Your task to perform on an android device: see sites visited before in the chrome app Image 0: 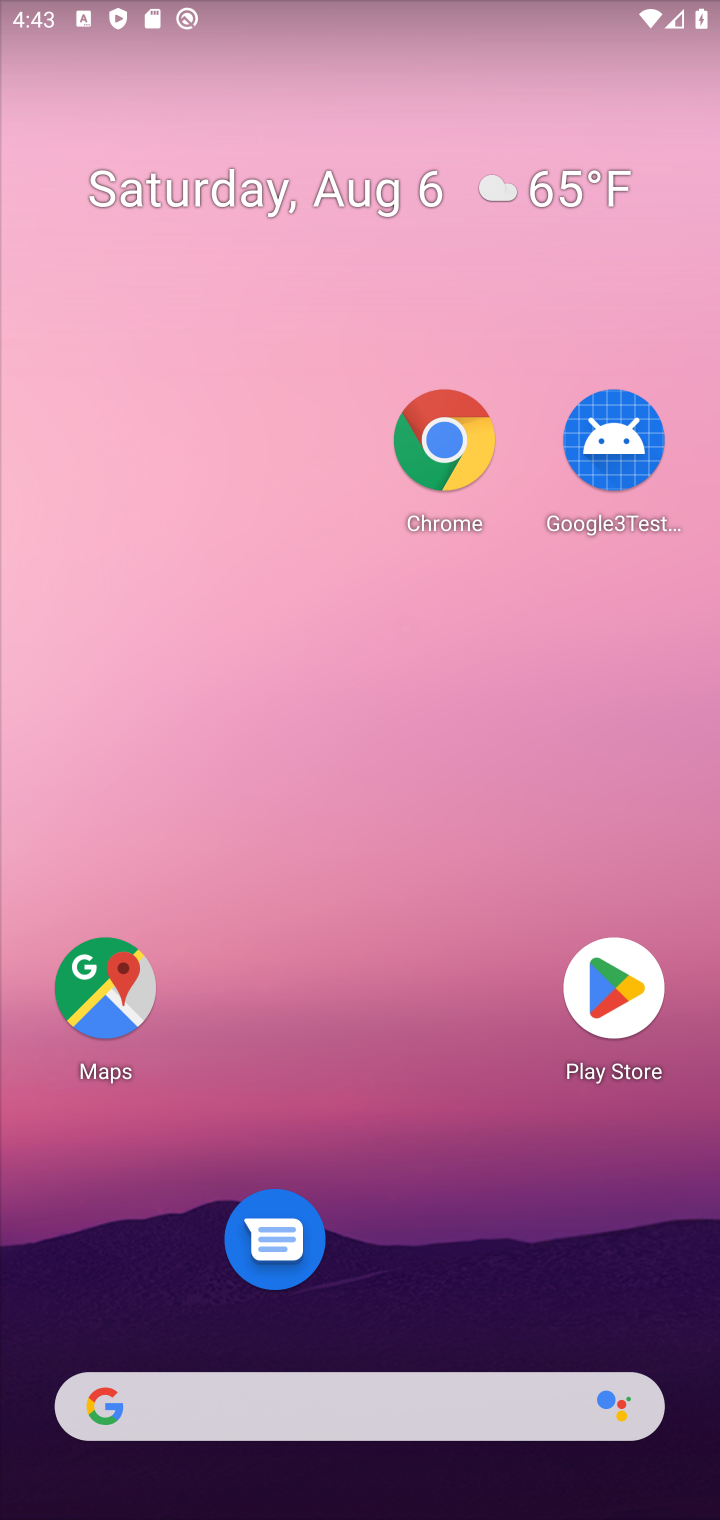
Step 0: drag from (374, 1380) to (386, 90)
Your task to perform on an android device: see sites visited before in the chrome app Image 1: 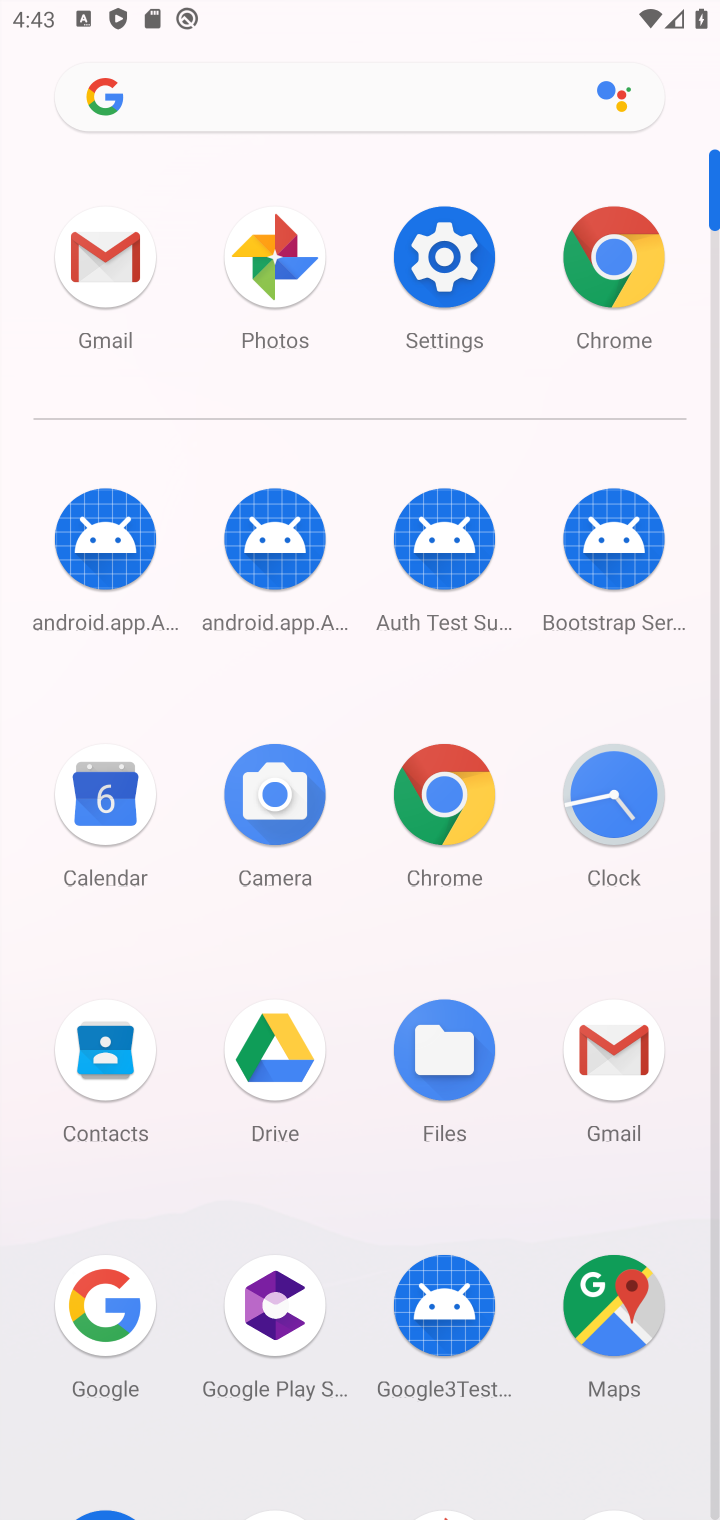
Step 1: click (449, 769)
Your task to perform on an android device: see sites visited before in the chrome app Image 2: 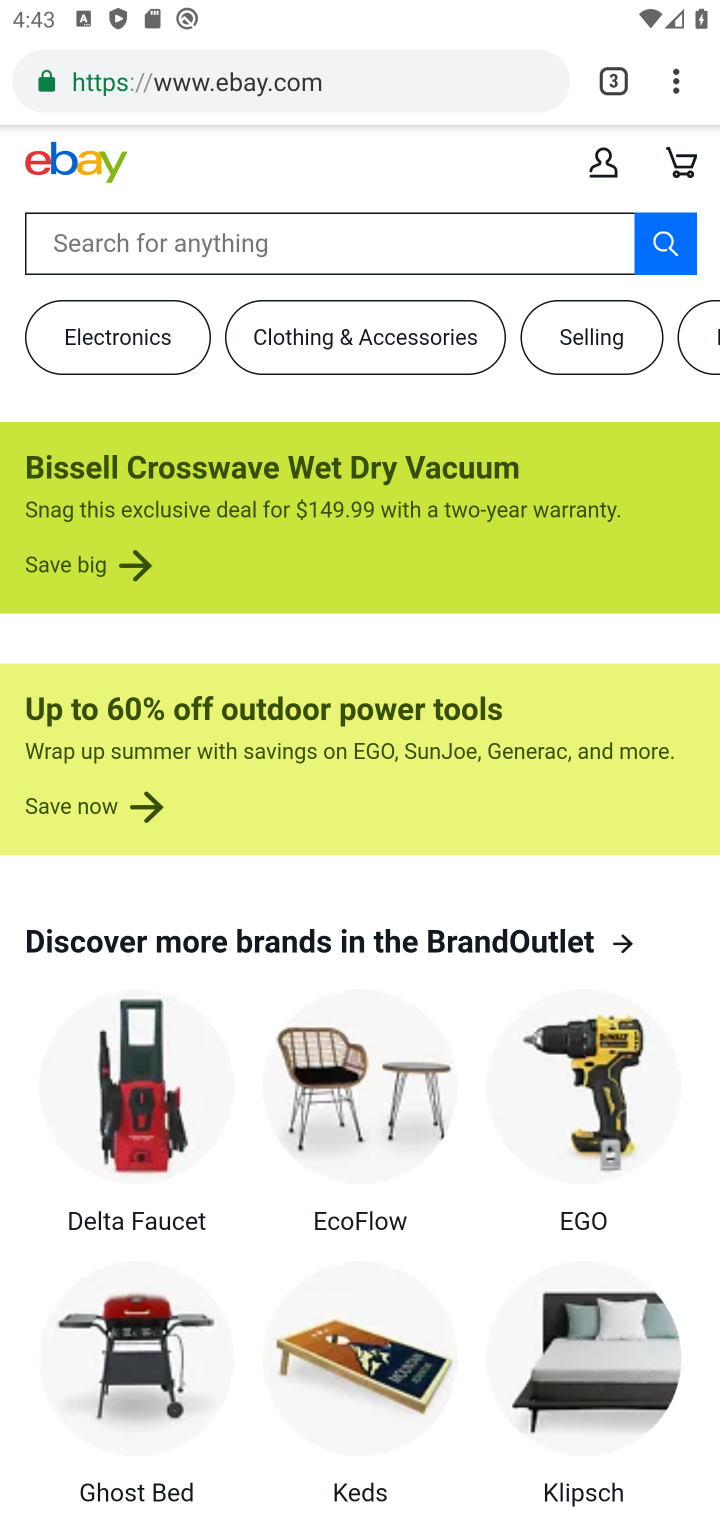
Step 2: click (681, 77)
Your task to perform on an android device: see sites visited before in the chrome app Image 3: 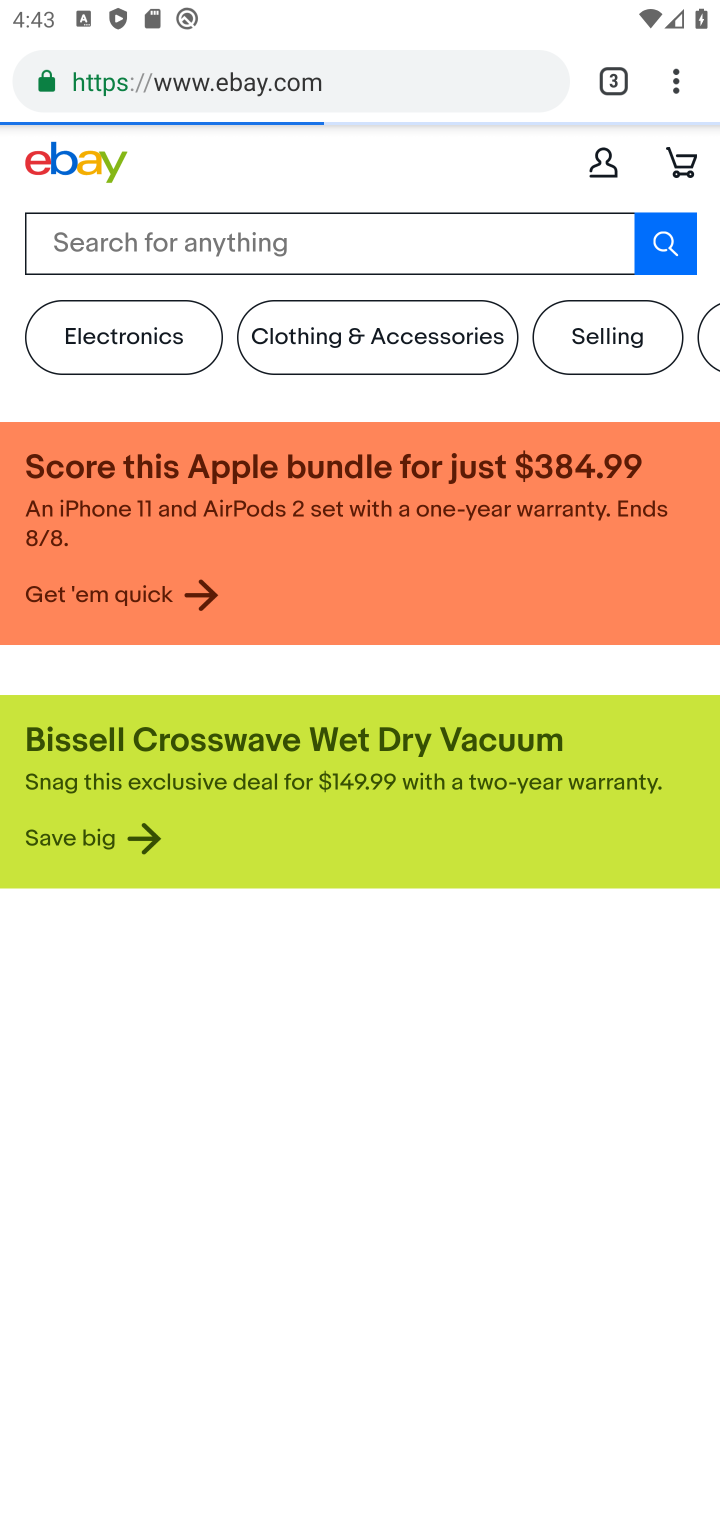
Step 3: click (681, 77)
Your task to perform on an android device: see sites visited before in the chrome app Image 4: 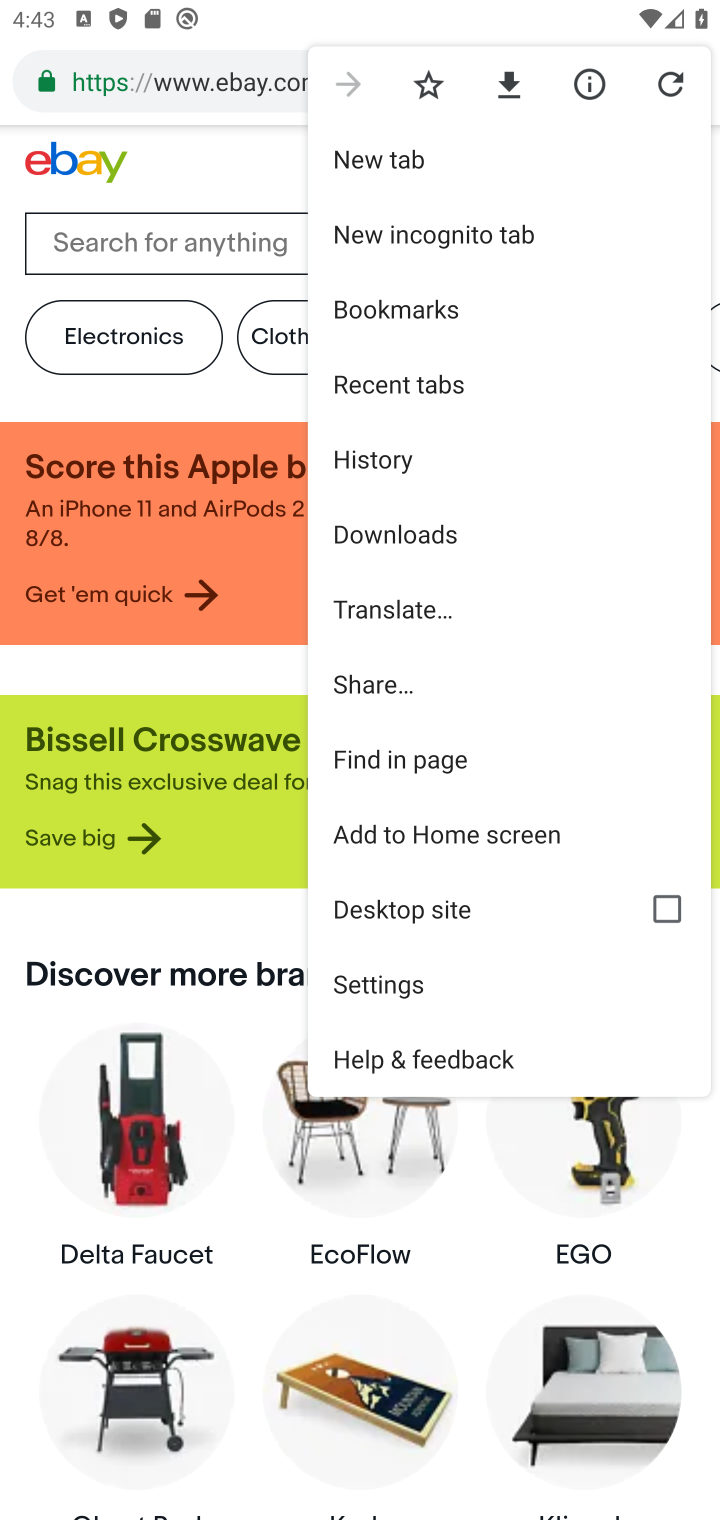
Step 4: click (403, 373)
Your task to perform on an android device: see sites visited before in the chrome app Image 5: 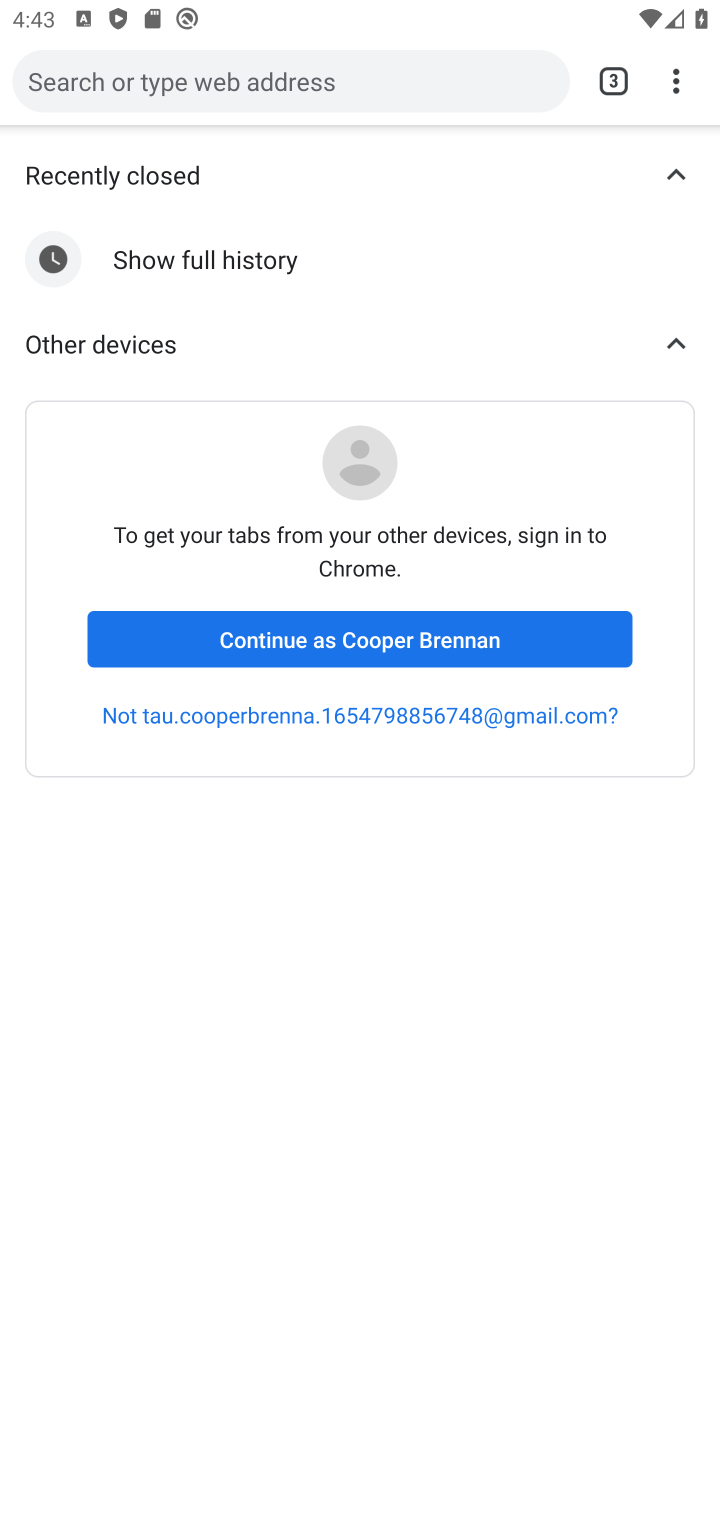
Step 5: task complete